Your task to perform on an android device: set default search engine in the chrome app Image 0: 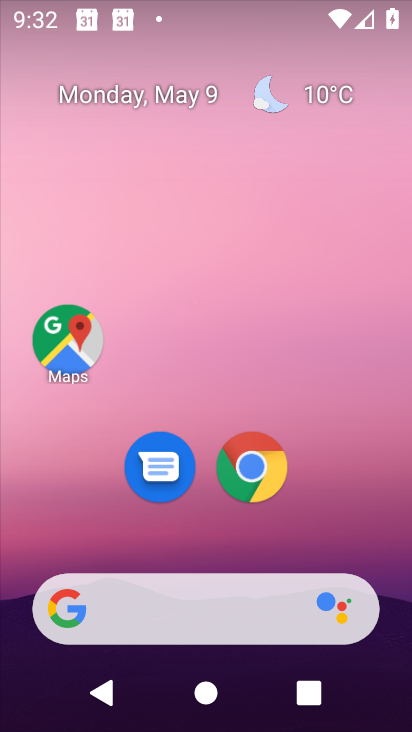
Step 0: click (258, 476)
Your task to perform on an android device: set default search engine in the chrome app Image 1: 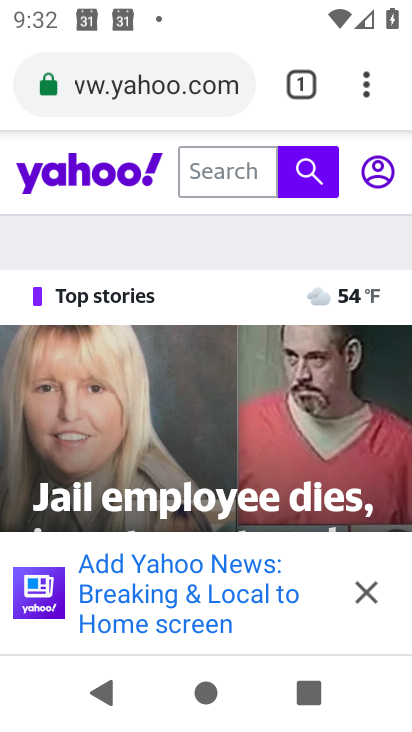
Step 1: click (367, 81)
Your task to perform on an android device: set default search engine in the chrome app Image 2: 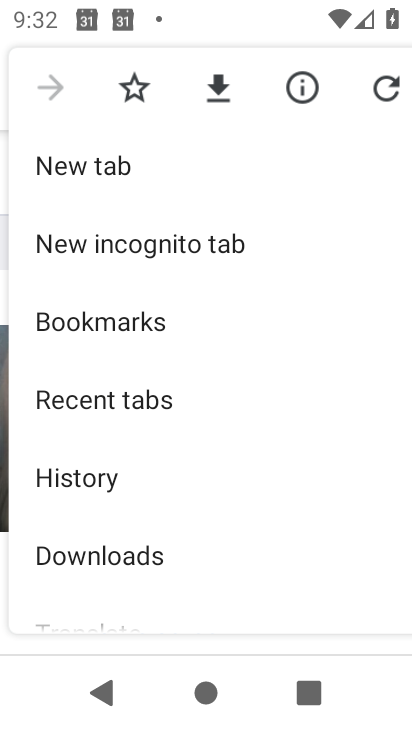
Step 2: drag from (177, 497) to (173, 205)
Your task to perform on an android device: set default search engine in the chrome app Image 3: 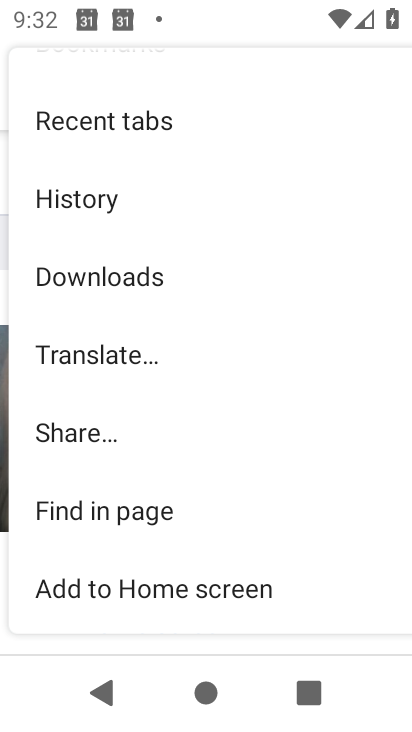
Step 3: drag from (220, 562) to (197, 196)
Your task to perform on an android device: set default search engine in the chrome app Image 4: 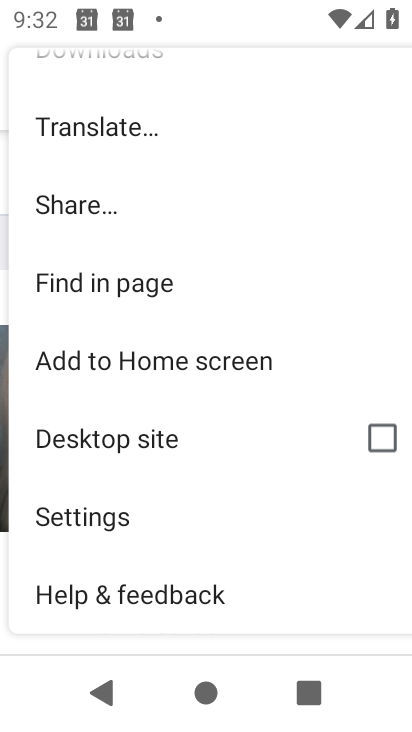
Step 4: click (120, 524)
Your task to perform on an android device: set default search engine in the chrome app Image 5: 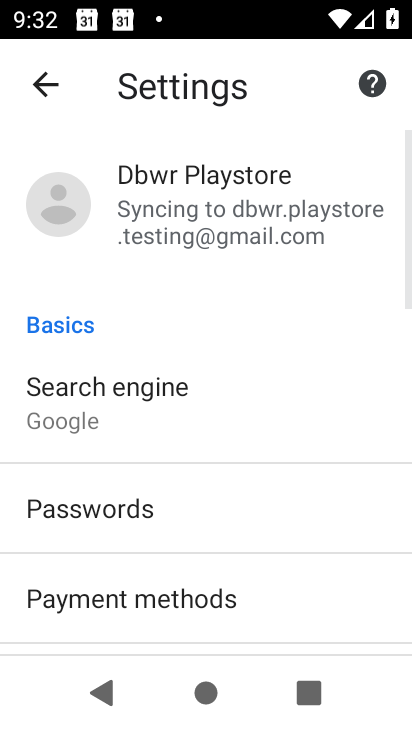
Step 5: click (109, 417)
Your task to perform on an android device: set default search engine in the chrome app Image 6: 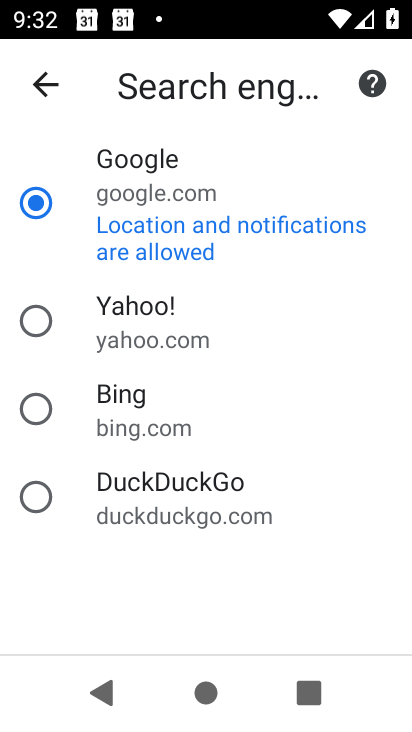
Step 6: click (32, 335)
Your task to perform on an android device: set default search engine in the chrome app Image 7: 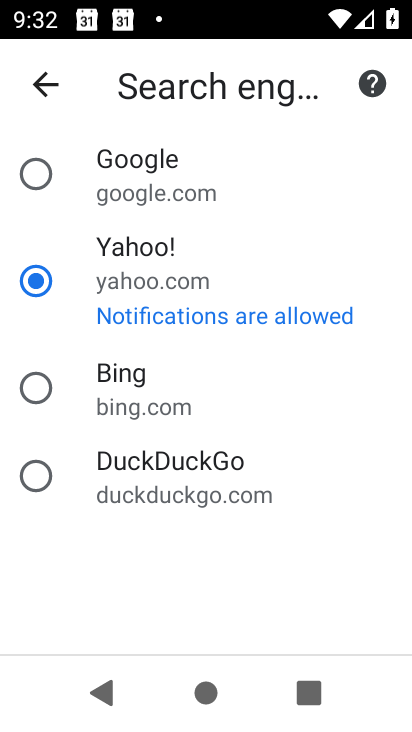
Step 7: task complete